Your task to perform on an android device: turn smart compose on in the gmail app Image 0: 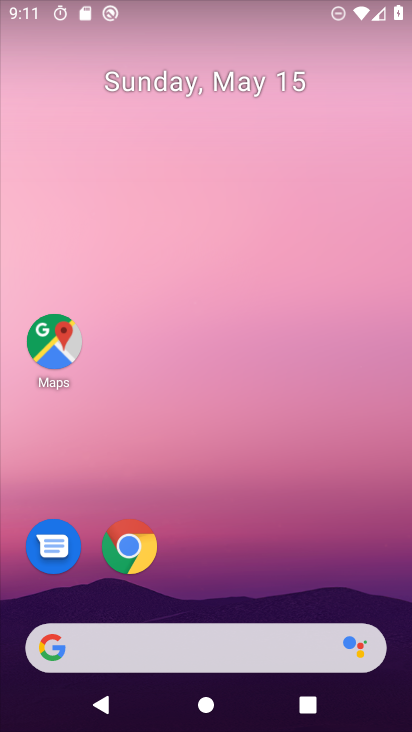
Step 0: drag from (250, 544) to (256, 87)
Your task to perform on an android device: turn smart compose on in the gmail app Image 1: 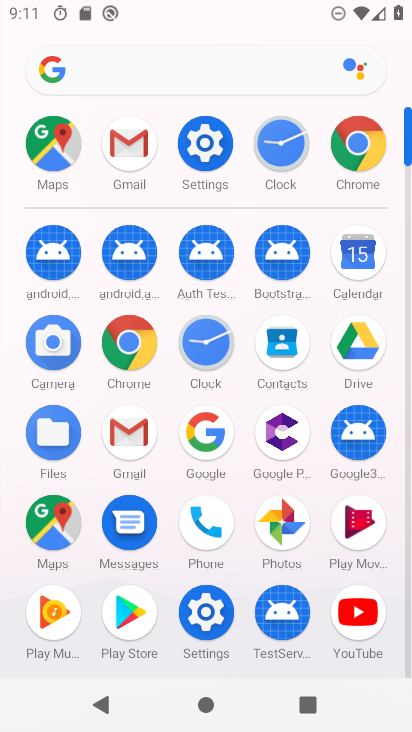
Step 1: click (131, 150)
Your task to perform on an android device: turn smart compose on in the gmail app Image 2: 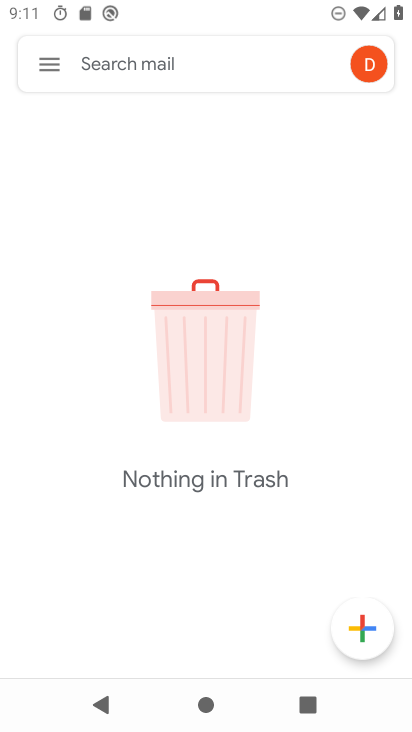
Step 2: click (52, 65)
Your task to perform on an android device: turn smart compose on in the gmail app Image 3: 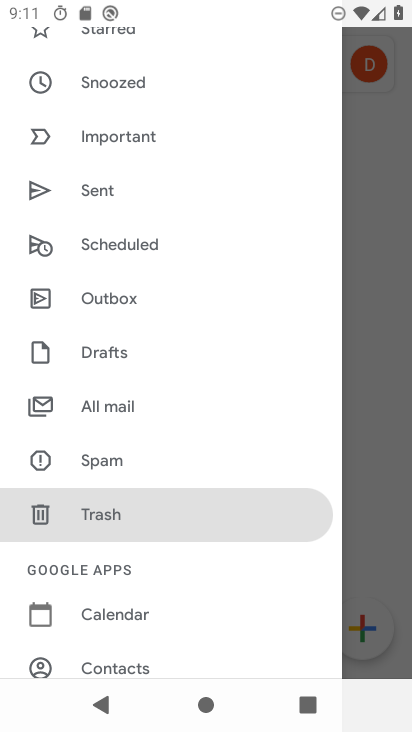
Step 3: drag from (175, 579) to (215, 286)
Your task to perform on an android device: turn smart compose on in the gmail app Image 4: 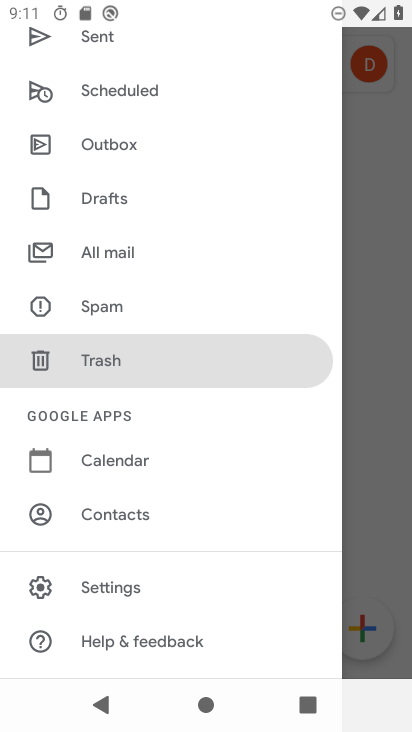
Step 4: click (118, 585)
Your task to perform on an android device: turn smart compose on in the gmail app Image 5: 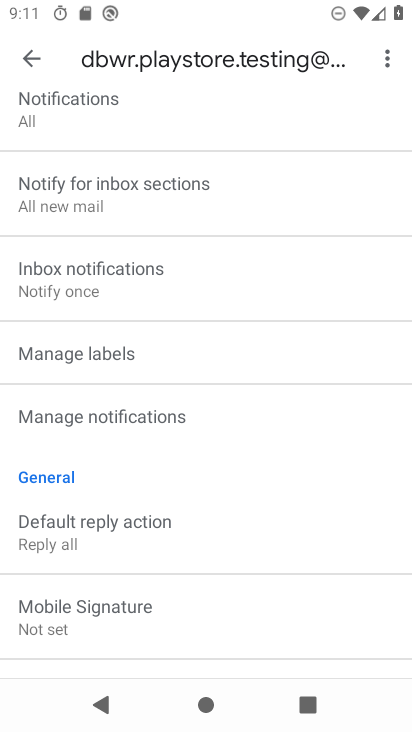
Step 5: task complete